Your task to perform on an android device: choose inbox layout in the gmail app Image 0: 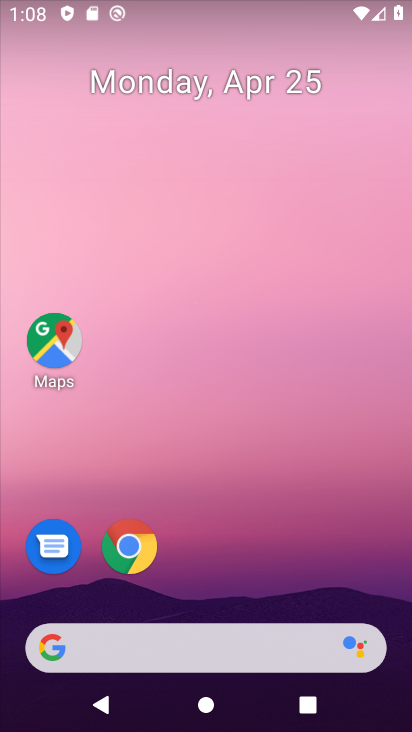
Step 0: drag from (205, 618) to (202, 6)
Your task to perform on an android device: choose inbox layout in the gmail app Image 1: 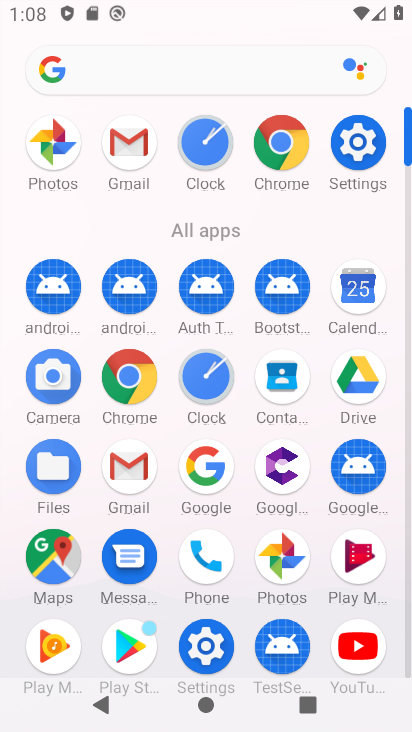
Step 1: click (123, 462)
Your task to perform on an android device: choose inbox layout in the gmail app Image 2: 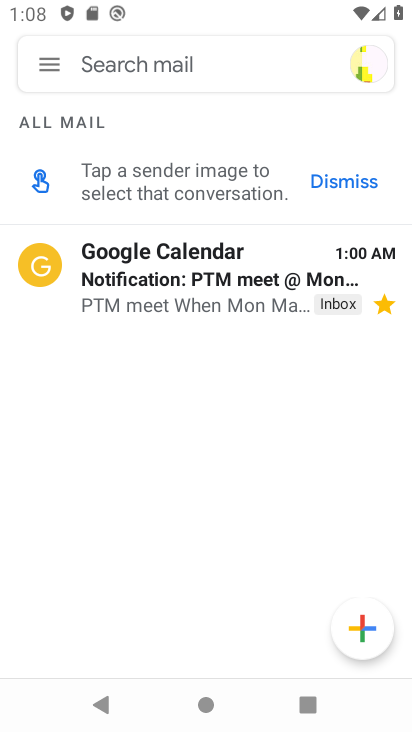
Step 2: click (38, 69)
Your task to perform on an android device: choose inbox layout in the gmail app Image 3: 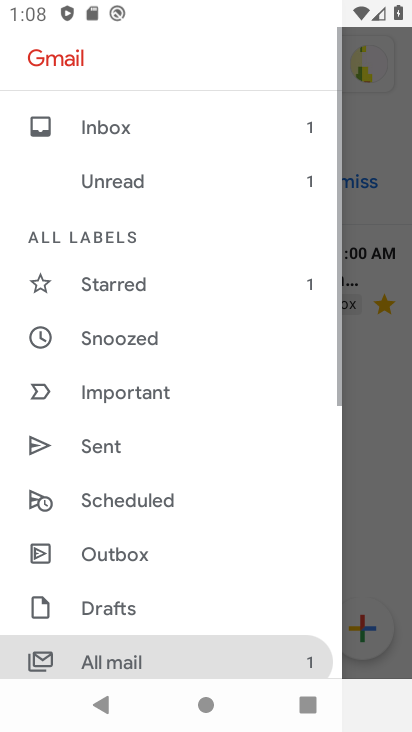
Step 3: click (91, 138)
Your task to perform on an android device: choose inbox layout in the gmail app Image 4: 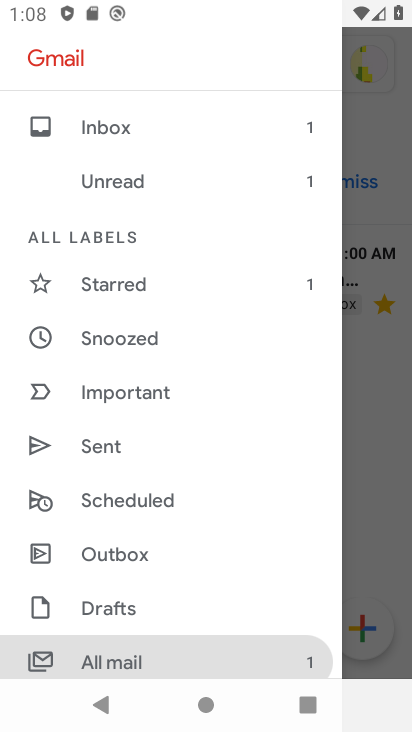
Step 4: click (100, 139)
Your task to perform on an android device: choose inbox layout in the gmail app Image 5: 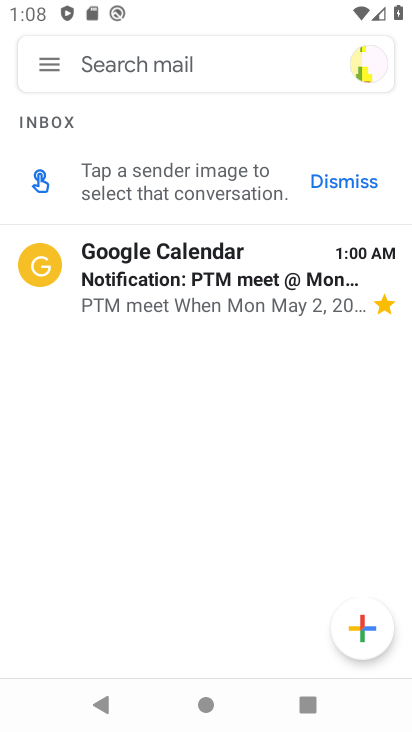
Step 5: task complete